Your task to perform on an android device: Turn on the flashlight Image 0: 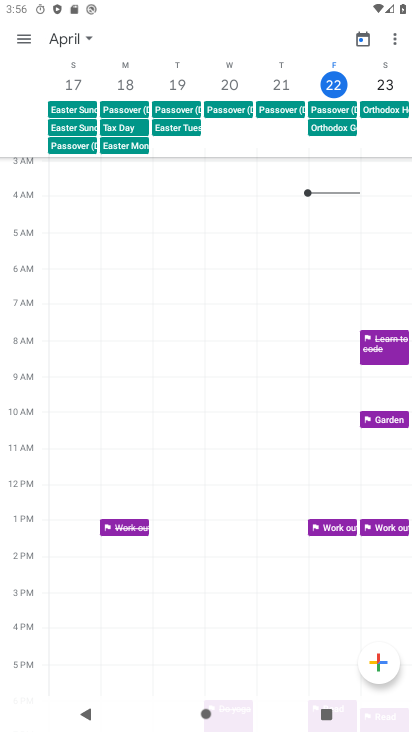
Step 0: press home button
Your task to perform on an android device: Turn on the flashlight Image 1: 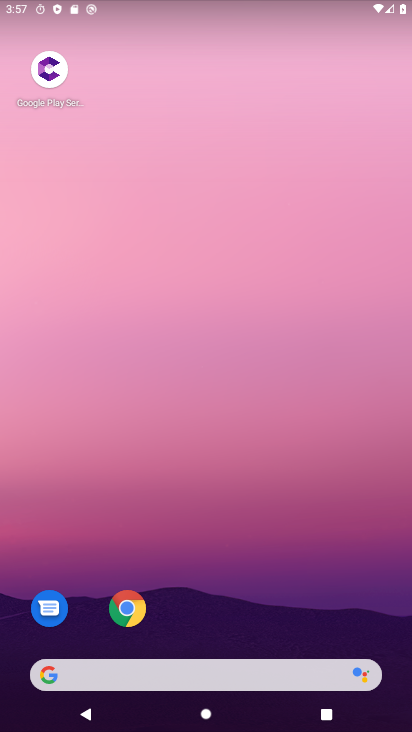
Step 1: drag from (270, 584) to (252, 139)
Your task to perform on an android device: Turn on the flashlight Image 2: 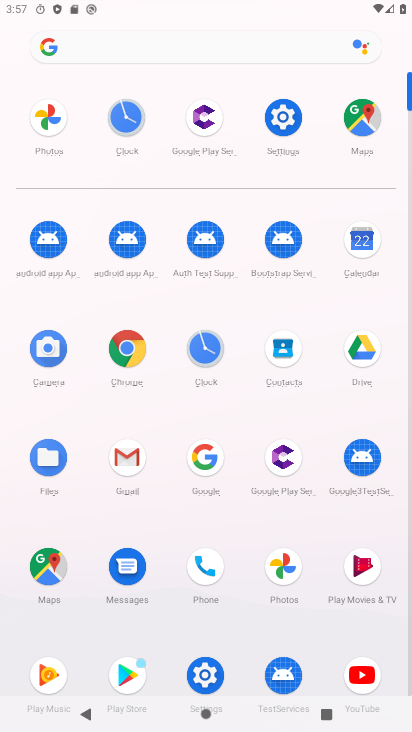
Step 2: click (281, 111)
Your task to perform on an android device: Turn on the flashlight Image 3: 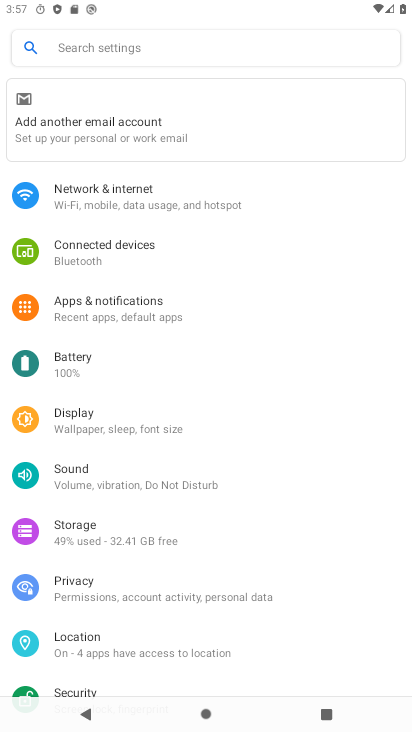
Step 3: click (167, 302)
Your task to perform on an android device: Turn on the flashlight Image 4: 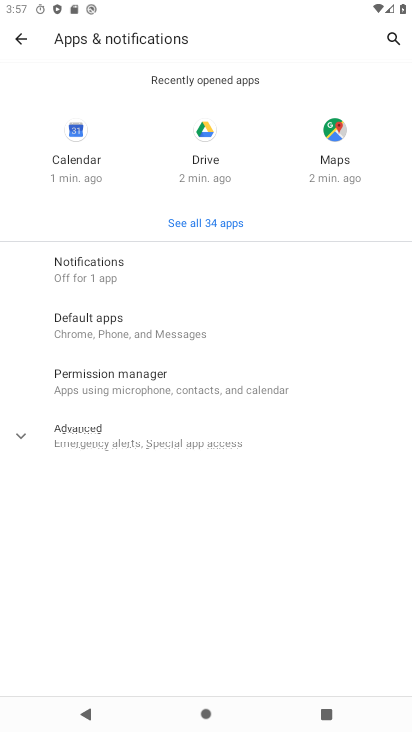
Step 4: click (192, 447)
Your task to perform on an android device: Turn on the flashlight Image 5: 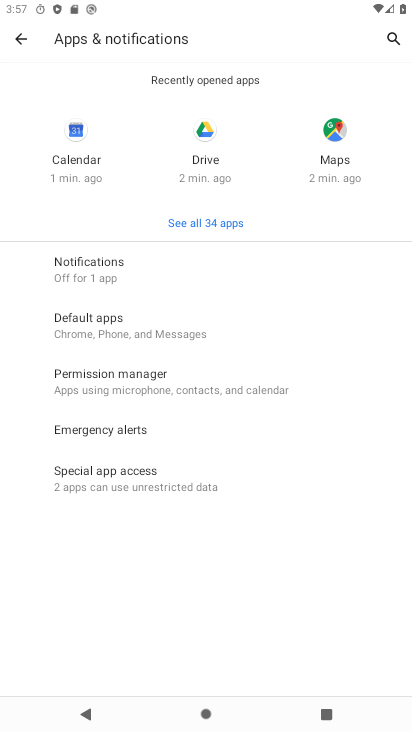
Step 5: click (199, 490)
Your task to perform on an android device: Turn on the flashlight Image 6: 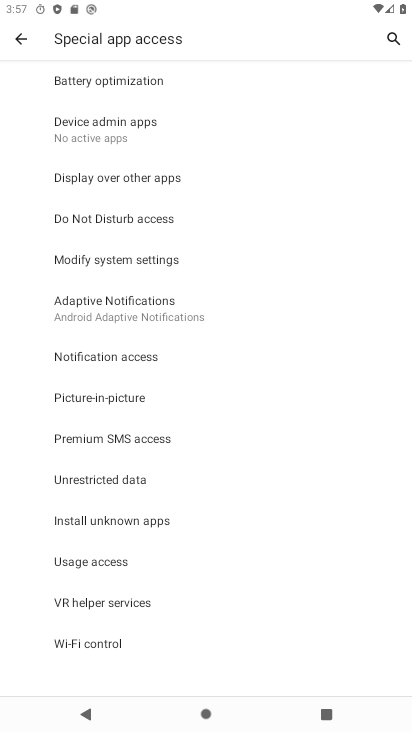
Step 6: task complete